Your task to perform on an android device: change the clock display to show seconds Image 0: 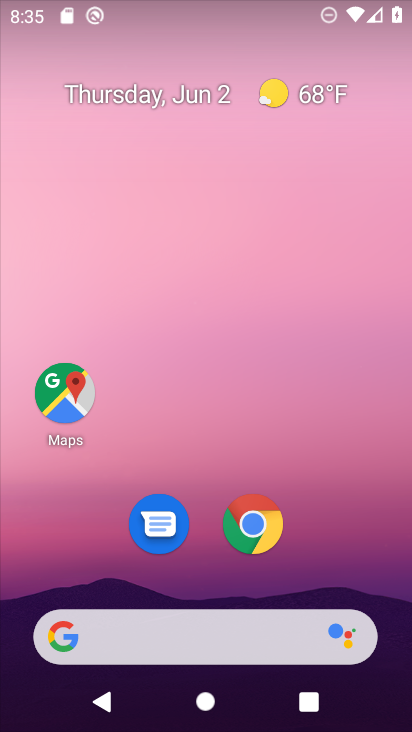
Step 0: drag from (215, 444) to (251, 4)
Your task to perform on an android device: change the clock display to show seconds Image 1: 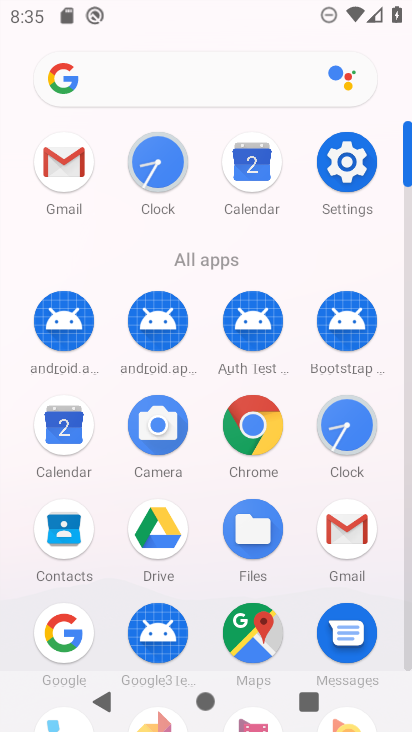
Step 1: click (351, 431)
Your task to perform on an android device: change the clock display to show seconds Image 2: 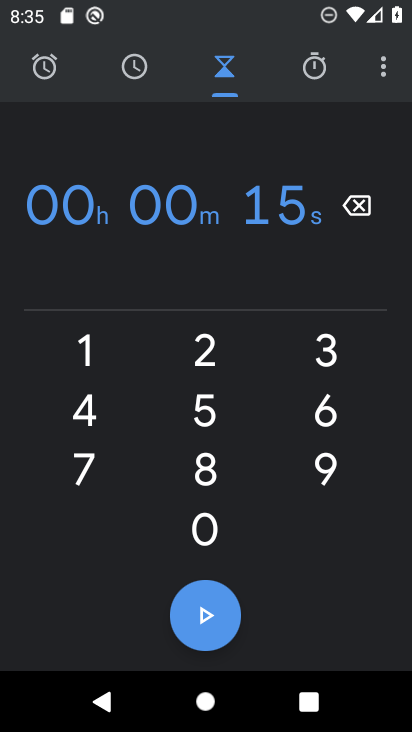
Step 2: click (380, 68)
Your task to perform on an android device: change the clock display to show seconds Image 3: 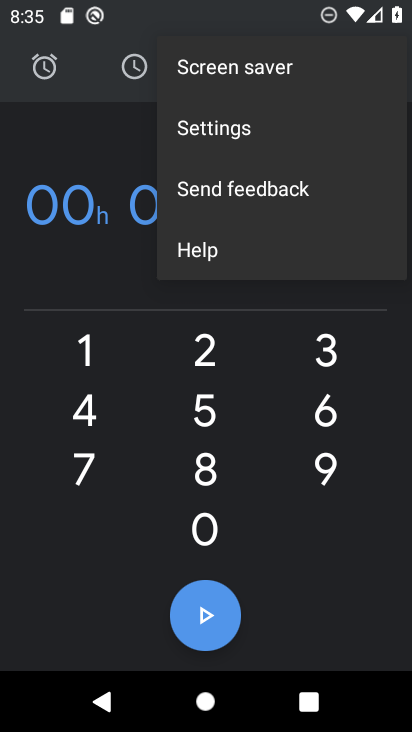
Step 3: click (308, 133)
Your task to perform on an android device: change the clock display to show seconds Image 4: 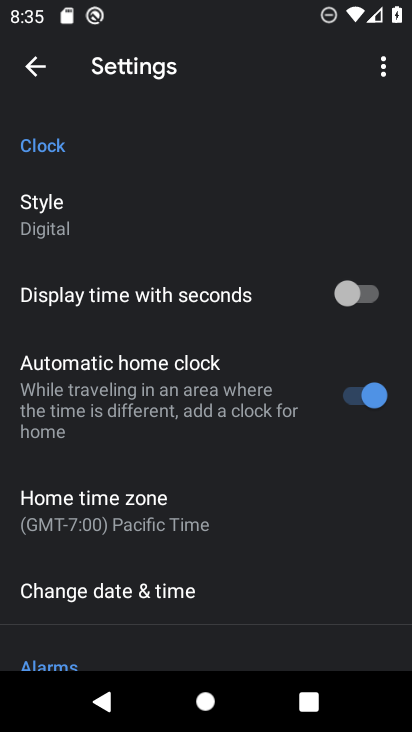
Step 4: click (360, 285)
Your task to perform on an android device: change the clock display to show seconds Image 5: 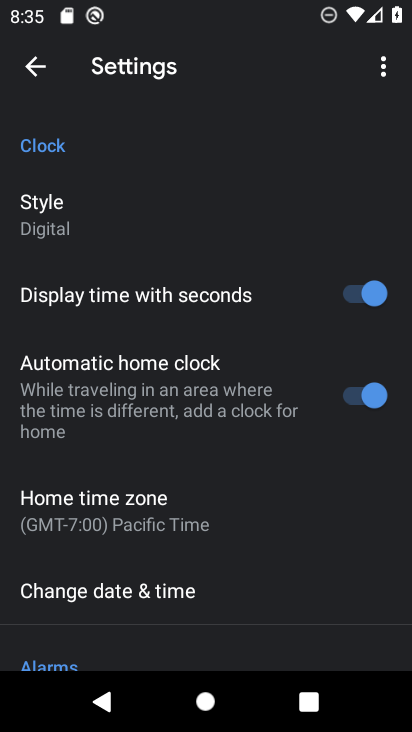
Step 5: task complete